Your task to perform on an android device: toggle data saver in the chrome app Image 0: 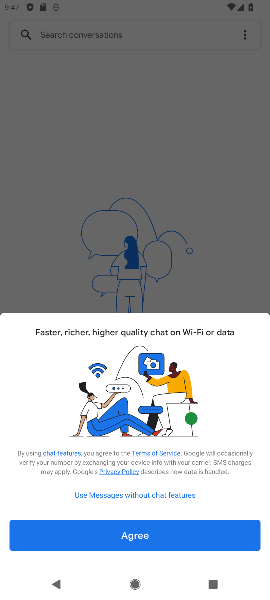
Step 0: press home button
Your task to perform on an android device: toggle data saver in the chrome app Image 1: 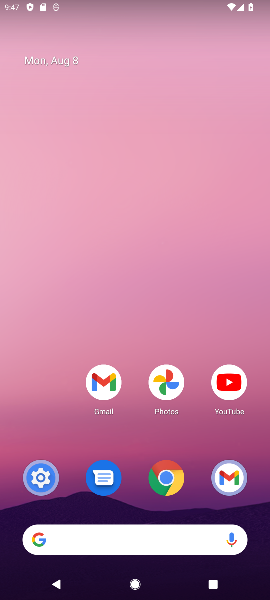
Step 1: drag from (134, 514) to (106, 75)
Your task to perform on an android device: toggle data saver in the chrome app Image 2: 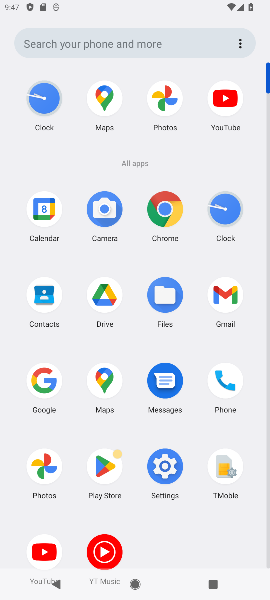
Step 2: click (235, 292)
Your task to perform on an android device: toggle data saver in the chrome app Image 3: 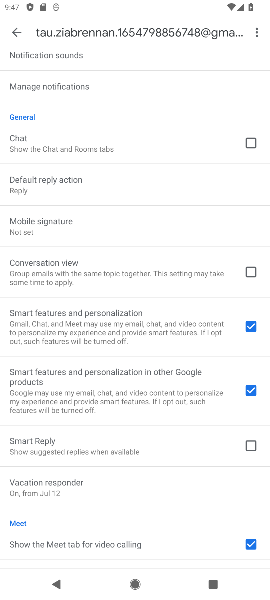
Step 3: click (16, 27)
Your task to perform on an android device: toggle data saver in the chrome app Image 4: 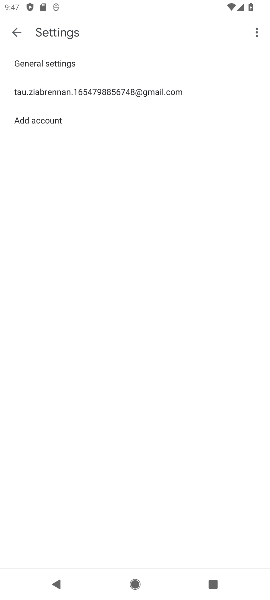
Step 4: click (15, 28)
Your task to perform on an android device: toggle data saver in the chrome app Image 5: 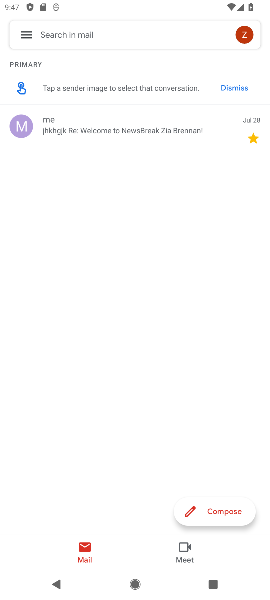
Step 5: drag from (58, 92) to (52, 16)
Your task to perform on an android device: toggle data saver in the chrome app Image 6: 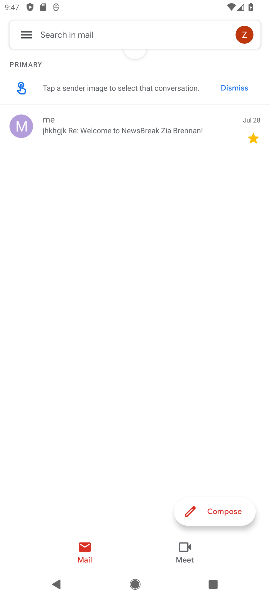
Step 6: click (66, 119)
Your task to perform on an android device: toggle data saver in the chrome app Image 7: 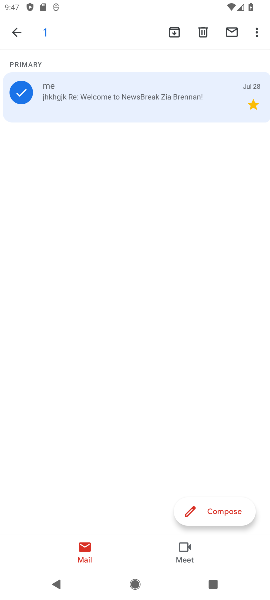
Step 7: click (248, 32)
Your task to perform on an android device: toggle data saver in the chrome app Image 8: 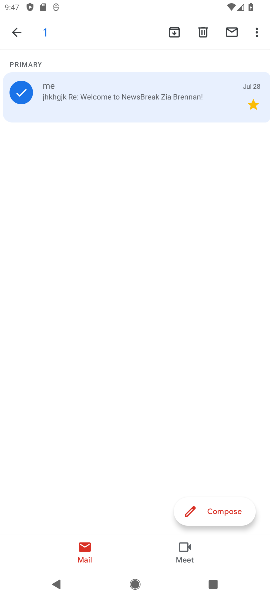
Step 8: drag from (256, 29) to (213, 184)
Your task to perform on an android device: toggle data saver in the chrome app Image 9: 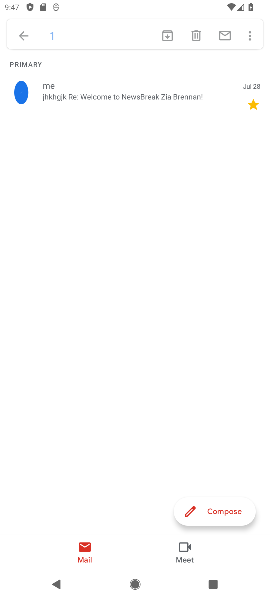
Step 9: click (250, 32)
Your task to perform on an android device: toggle data saver in the chrome app Image 10: 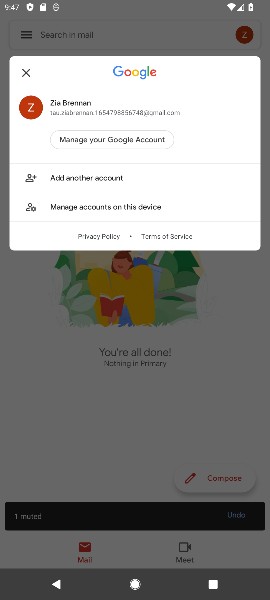
Step 10: task complete